Your task to perform on an android device: Go to network settings Image 0: 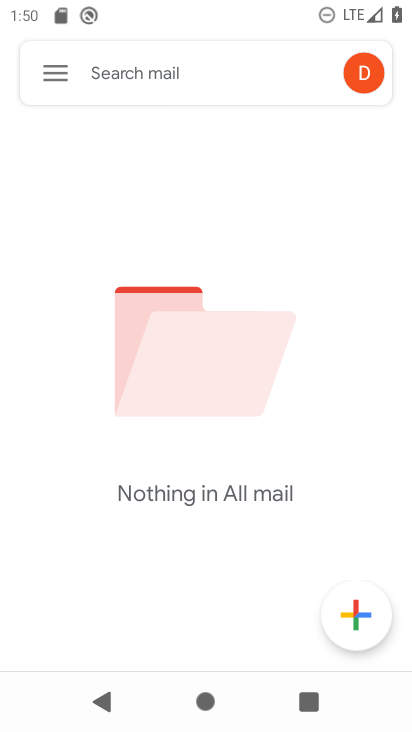
Step 0: press home button
Your task to perform on an android device: Go to network settings Image 1: 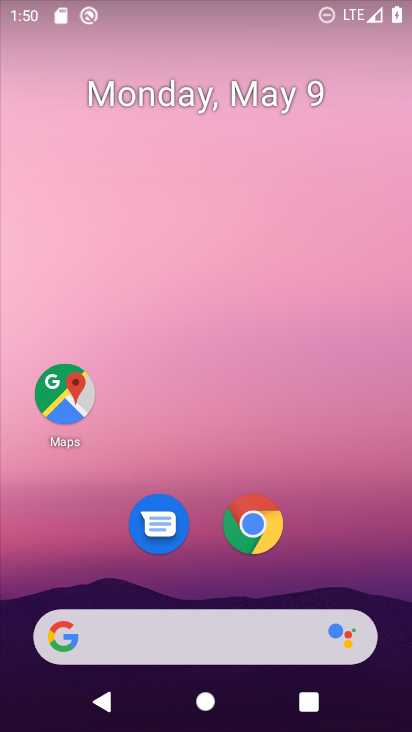
Step 1: drag from (302, 547) to (307, 52)
Your task to perform on an android device: Go to network settings Image 2: 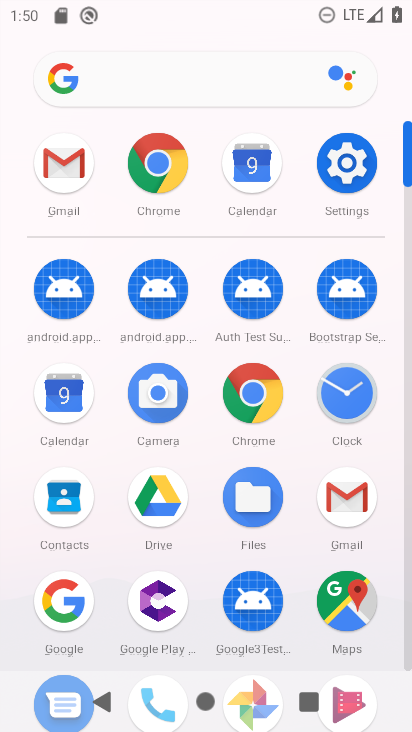
Step 2: click (353, 156)
Your task to perform on an android device: Go to network settings Image 3: 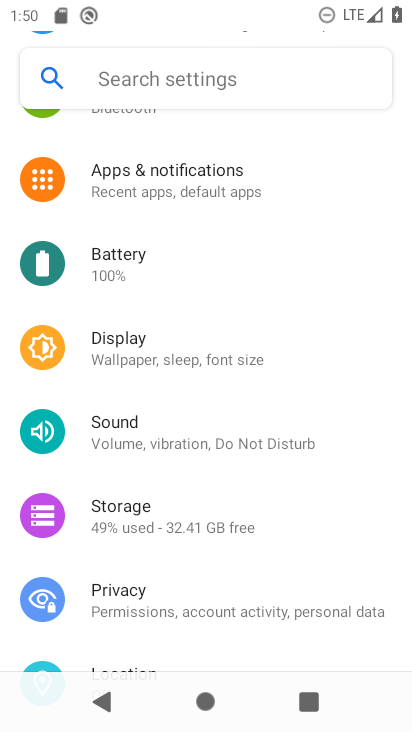
Step 3: drag from (240, 222) to (212, 634)
Your task to perform on an android device: Go to network settings Image 4: 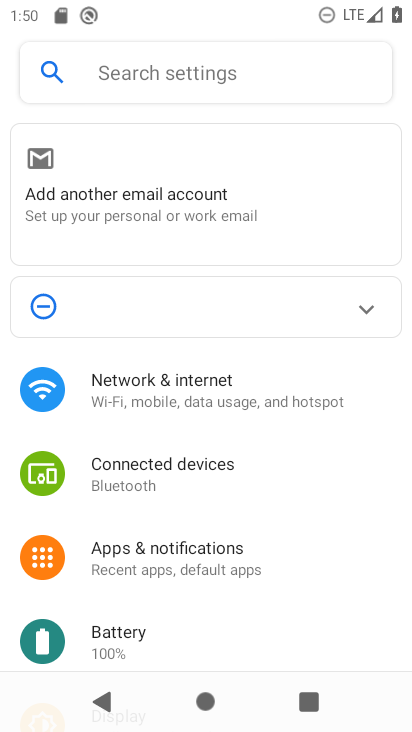
Step 4: click (218, 376)
Your task to perform on an android device: Go to network settings Image 5: 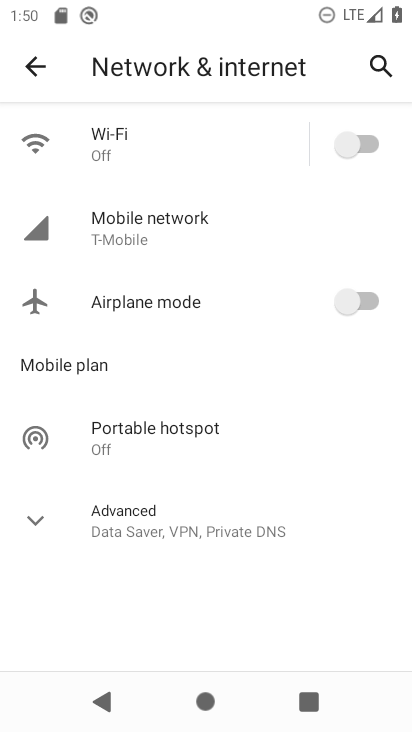
Step 5: task complete